Your task to perform on an android device: set the timer Image 0: 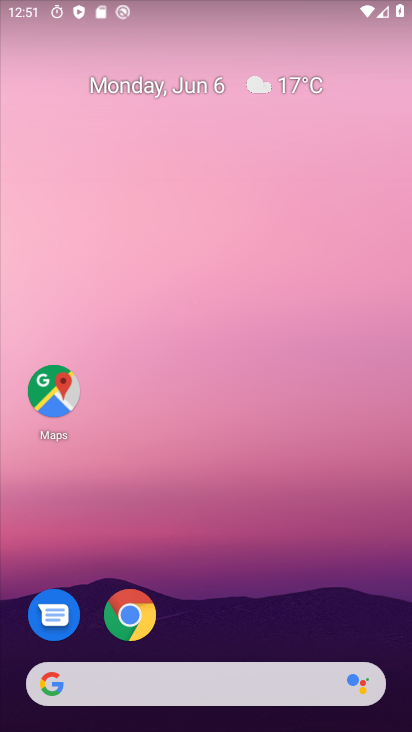
Step 0: click (239, 144)
Your task to perform on an android device: set the timer Image 1: 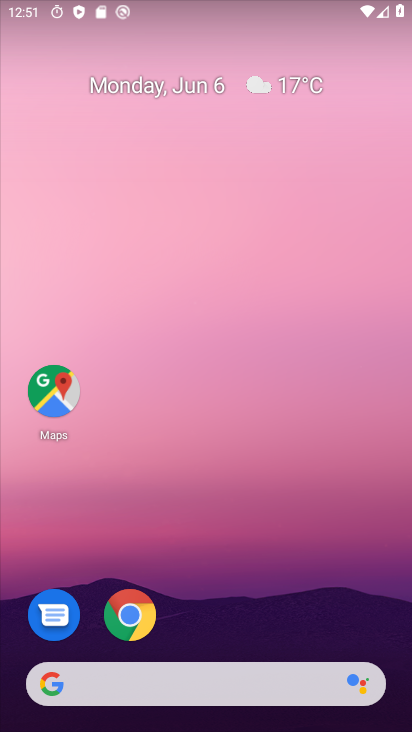
Step 1: drag from (195, 496) to (211, 67)
Your task to perform on an android device: set the timer Image 2: 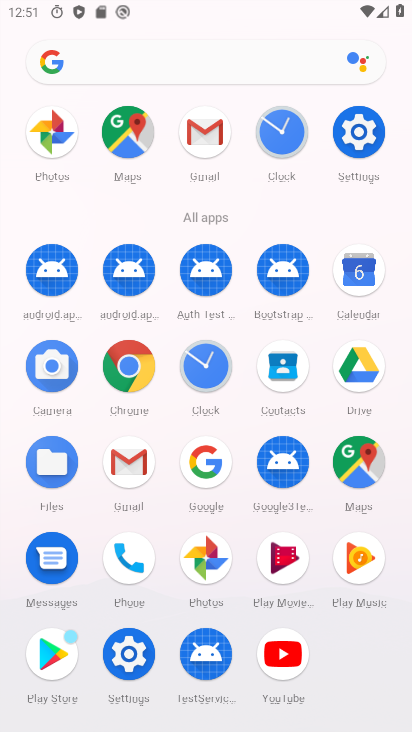
Step 2: click (201, 370)
Your task to perform on an android device: set the timer Image 3: 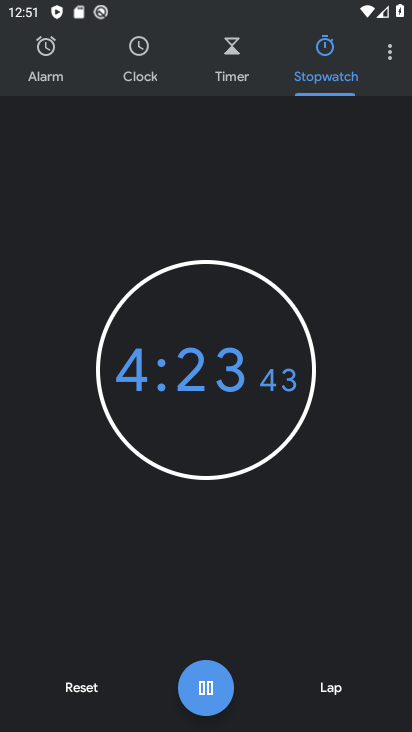
Step 3: click (231, 42)
Your task to perform on an android device: set the timer Image 4: 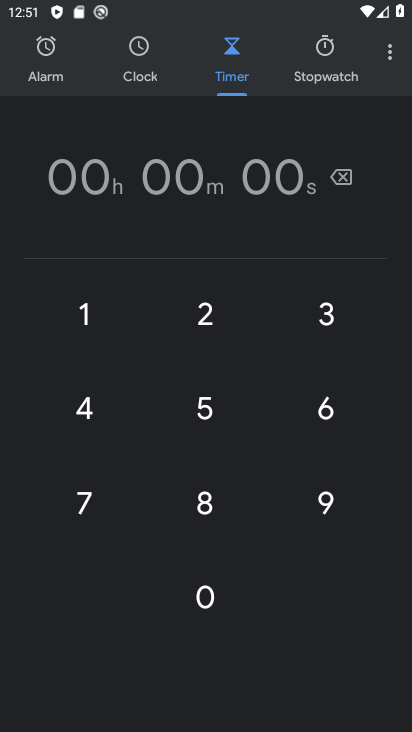
Step 4: drag from (198, 326) to (323, 327)
Your task to perform on an android device: set the timer Image 5: 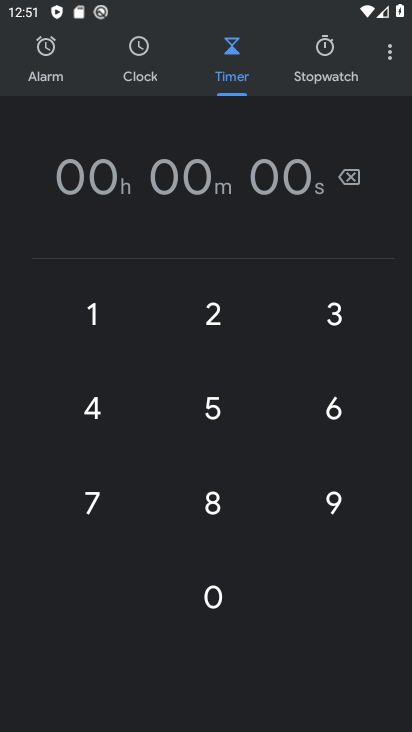
Step 5: click (222, 354)
Your task to perform on an android device: set the timer Image 6: 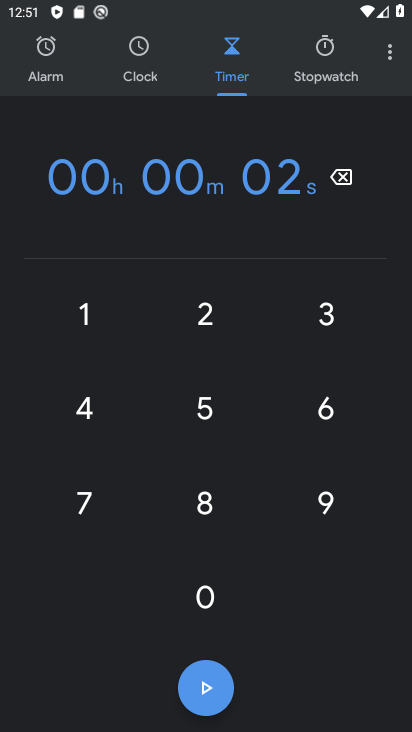
Step 6: click (309, 417)
Your task to perform on an android device: set the timer Image 7: 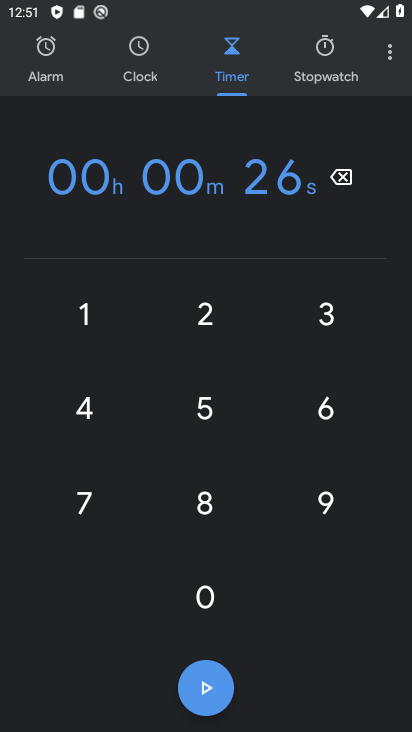
Step 7: click (191, 693)
Your task to perform on an android device: set the timer Image 8: 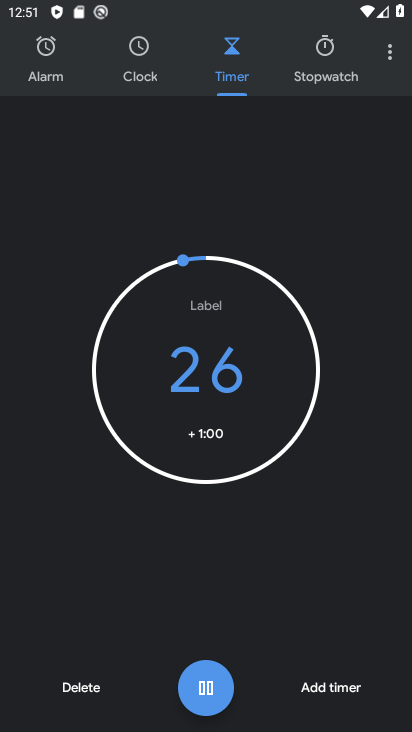
Step 8: task complete